Your task to perform on an android device: Clear the shopping cart on walmart. Add "macbook pro 13 inch" to the cart on walmart, then select checkout. Image 0: 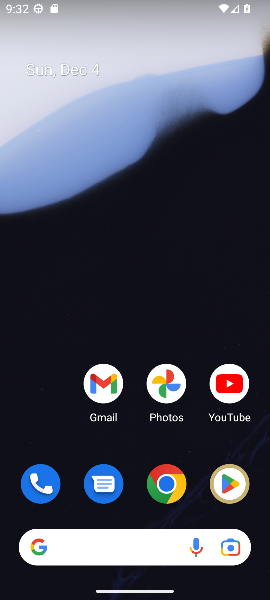
Step 0: click (169, 488)
Your task to perform on an android device: Clear the shopping cart on walmart. Add "macbook pro 13 inch" to the cart on walmart, then select checkout. Image 1: 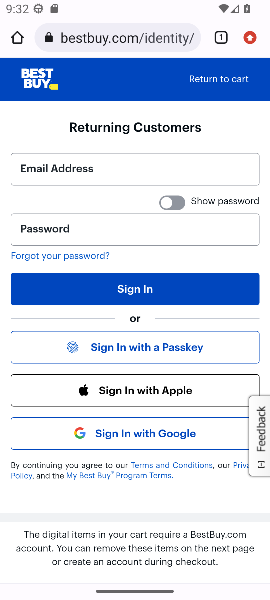
Step 1: click (104, 38)
Your task to perform on an android device: Clear the shopping cart on walmart. Add "macbook pro 13 inch" to the cart on walmart, then select checkout. Image 2: 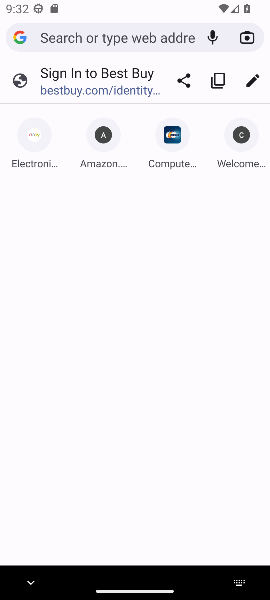
Step 2: type "walmart.com"
Your task to perform on an android device: Clear the shopping cart on walmart. Add "macbook pro 13 inch" to the cart on walmart, then select checkout. Image 3: 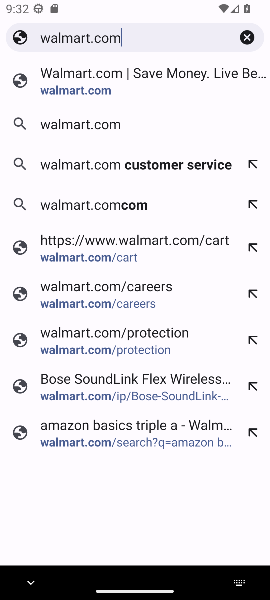
Step 3: click (71, 84)
Your task to perform on an android device: Clear the shopping cart on walmart. Add "macbook pro 13 inch" to the cart on walmart, then select checkout. Image 4: 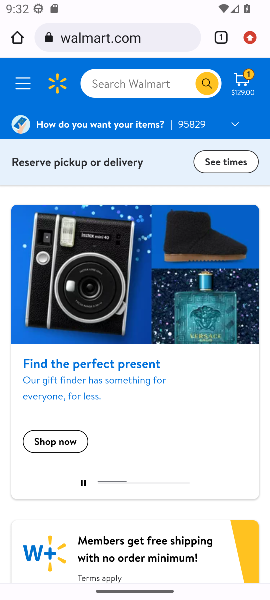
Step 4: click (250, 82)
Your task to perform on an android device: Clear the shopping cart on walmart. Add "macbook pro 13 inch" to the cart on walmart, then select checkout. Image 5: 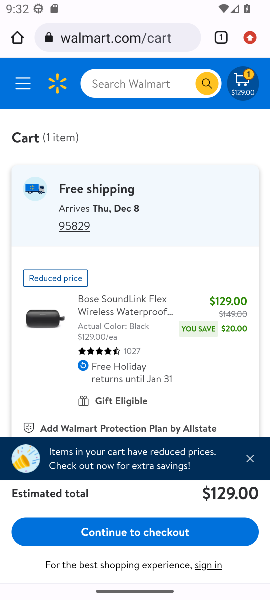
Step 5: click (249, 462)
Your task to perform on an android device: Clear the shopping cart on walmart. Add "macbook pro 13 inch" to the cart on walmart, then select checkout. Image 6: 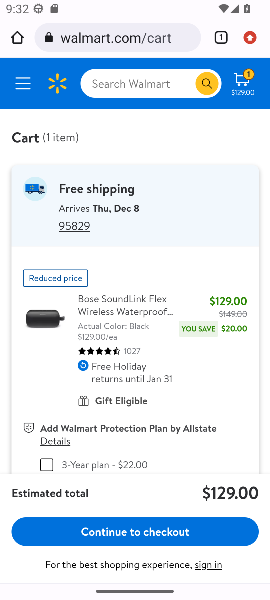
Step 6: drag from (208, 417) to (186, 205)
Your task to perform on an android device: Clear the shopping cart on walmart. Add "macbook pro 13 inch" to the cart on walmart, then select checkout. Image 7: 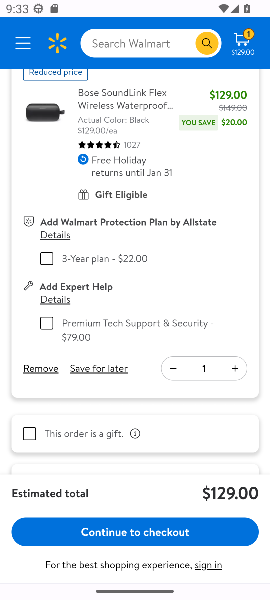
Step 7: click (27, 372)
Your task to perform on an android device: Clear the shopping cart on walmart. Add "macbook pro 13 inch" to the cart on walmart, then select checkout. Image 8: 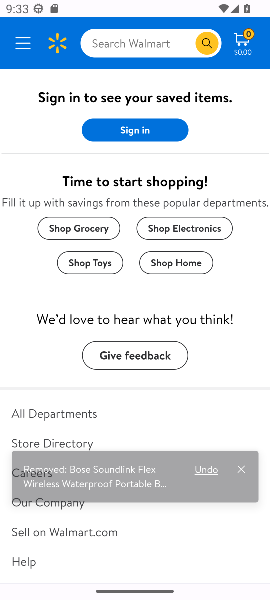
Step 8: drag from (229, 148) to (229, 247)
Your task to perform on an android device: Clear the shopping cart on walmart. Add "macbook pro 13 inch" to the cart on walmart, then select checkout. Image 9: 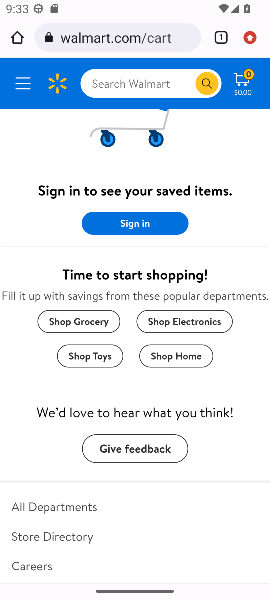
Step 9: click (143, 83)
Your task to perform on an android device: Clear the shopping cart on walmart. Add "macbook pro 13 inch" to the cart on walmart, then select checkout. Image 10: 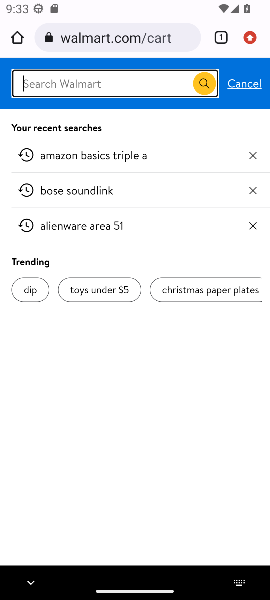
Step 10: type "macbook pro 13 inch"
Your task to perform on an android device: Clear the shopping cart on walmart. Add "macbook pro 13 inch" to the cart on walmart, then select checkout. Image 11: 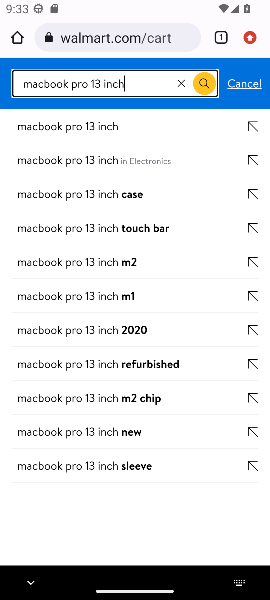
Step 11: click (93, 126)
Your task to perform on an android device: Clear the shopping cart on walmart. Add "macbook pro 13 inch" to the cart on walmart, then select checkout. Image 12: 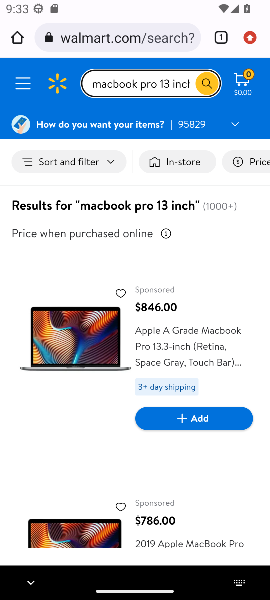
Step 12: drag from (89, 417) to (93, 287)
Your task to perform on an android device: Clear the shopping cart on walmart. Add "macbook pro 13 inch" to the cart on walmart, then select checkout. Image 13: 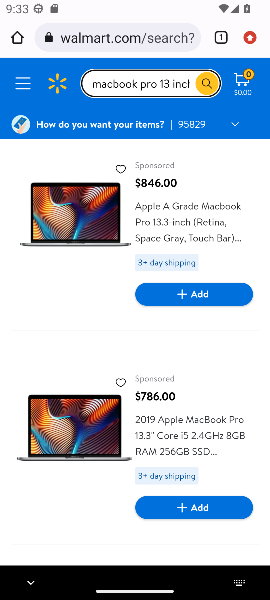
Step 13: drag from (99, 446) to (85, 287)
Your task to perform on an android device: Clear the shopping cart on walmart. Add "macbook pro 13 inch" to the cart on walmart, then select checkout. Image 14: 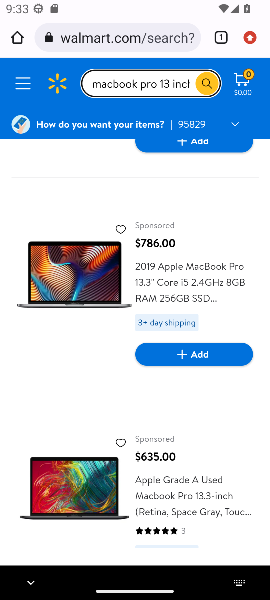
Step 14: drag from (85, 287) to (80, 484)
Your task to perform on an android device: Clear the shopping cart on walmart. Add "macbook pro 13 inch" to the cart on walmart, then select checkout. Image 15: 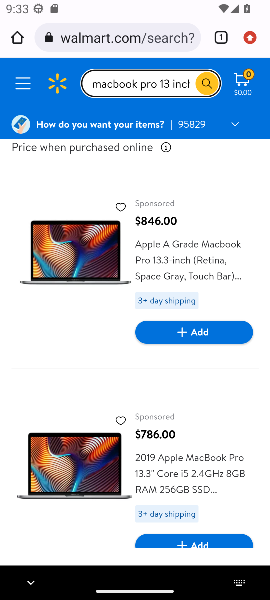
Step 15: click (199, 326)
Your task to perform on an android device: Clear the shopping cart on walmart. Add "macbook pro 13 inch" to the cart on walmart, then select checkout. Image 16: 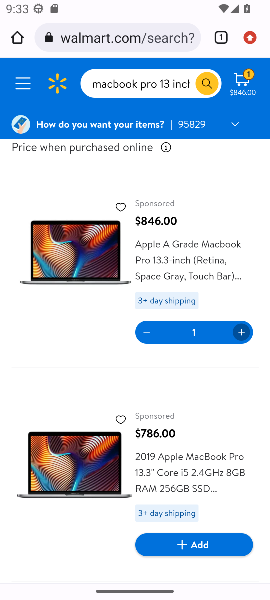
Step 16: click (242, 82)
Your task to perform on an android device: Clear the shopping cart on walmart. Add "macbook pro 13 inch" to the cart on walmart, then select checkout. Image 17: 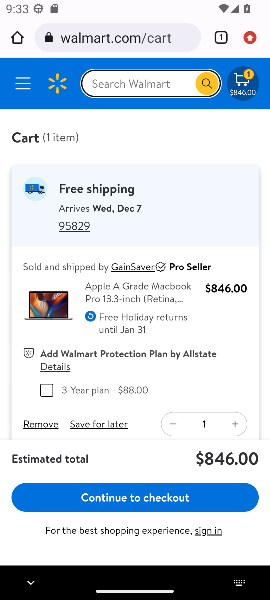
Step 17: click (102, 492)
Your task to perform on an android device: Clear the shopping cart on walmart. Add "macbook pro 13 inch" to the cart on walmart, then select checkout. Image 18: 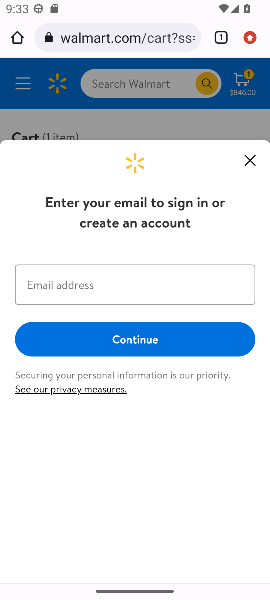
Step 18: task complete